Your task to perform on an android device: check data usage Image 0: 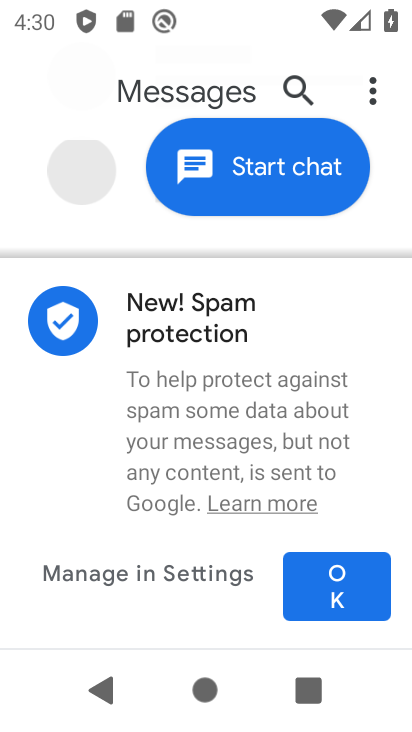
Step 0: press home button
Your task to perform on an android device: check data usage Image 1: 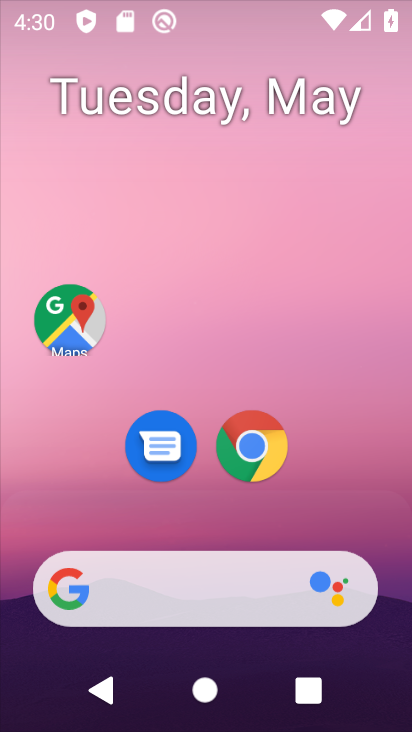
Step 1: drag from (340, 2) to (347, 508)
Your task to perform on an android device: check data usage Image 2: 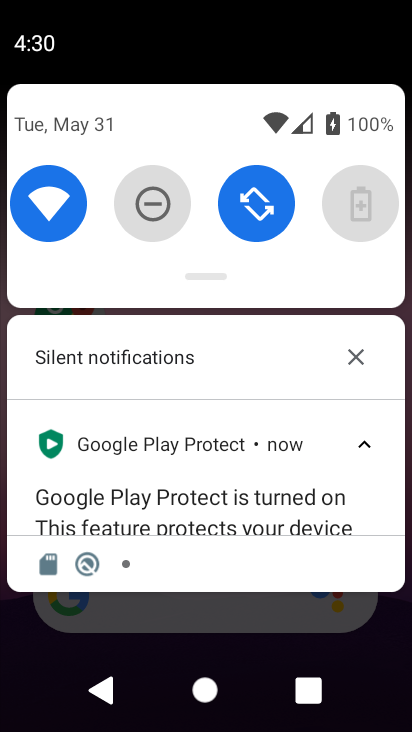
Step 2: drag from (318, 221) to (360, 731)
Your task to perform on an android device: check data usage Image 3: 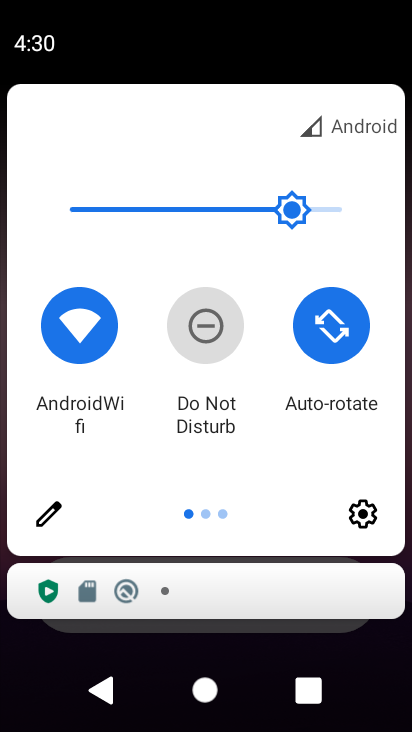
Step 3: drag from (401, 353) to (3, 440)
Your task to perform on an android device: check data usage Image 4: 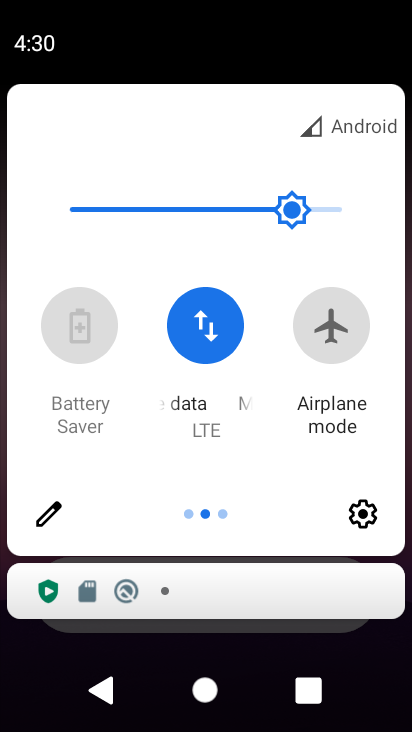
Step 4: click (222, 342)
Your task to perform on an android device: check data usage Image 5: 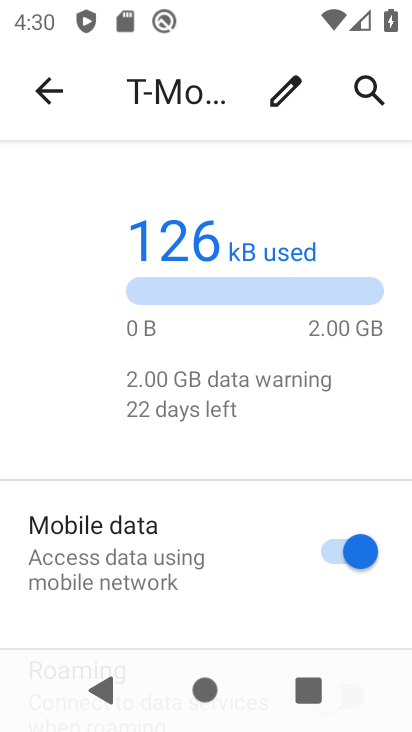
Step 5: task complete